Your task to perform on an android device: Go to wifi settings Image 0: 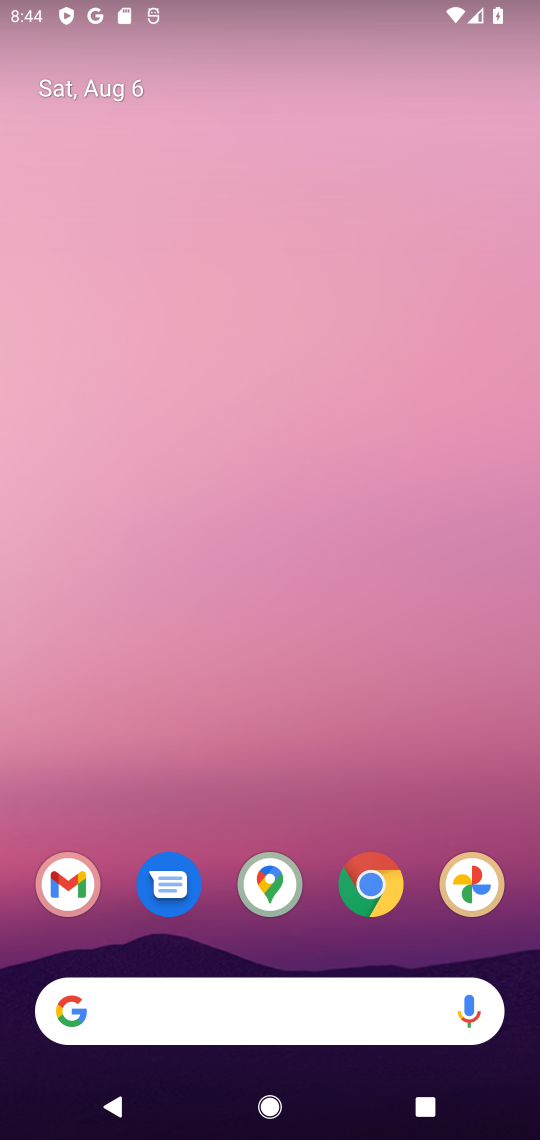
Step 0: drag from (326, 944) to (322, 124)
Your task to perform on an android device: Go to wifi settings Image 1: 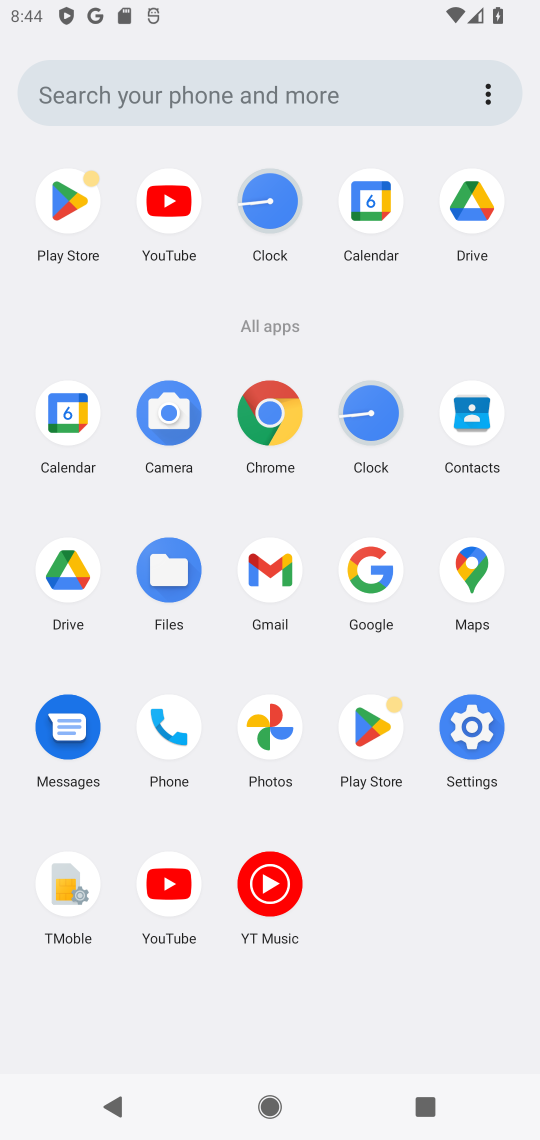
Step 1: click (472, 730)
Your task to perform on an android device: Go to wifi settings Image 2: 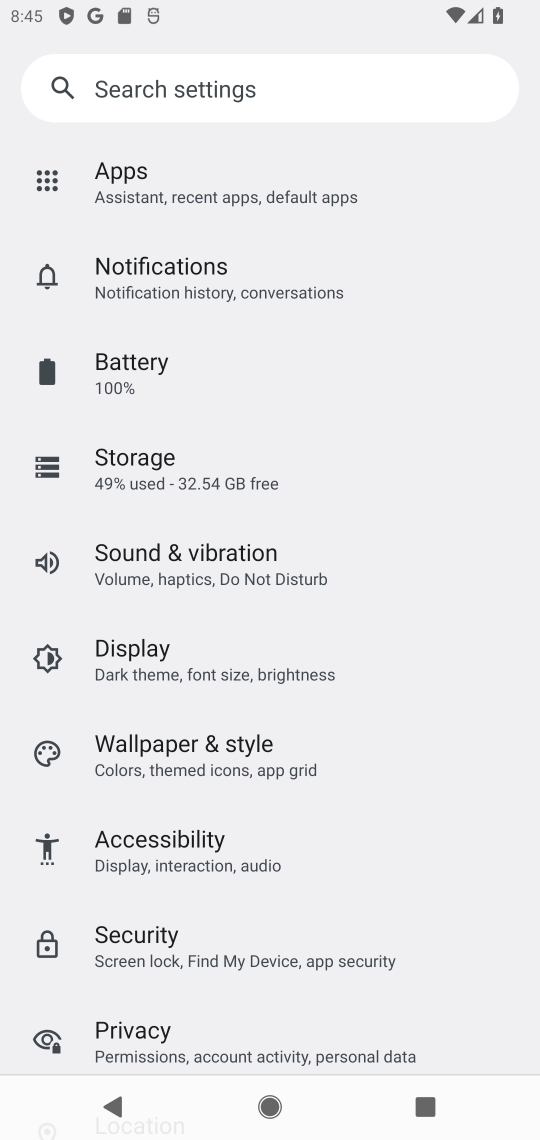
Step 2: drag from (423, 315) to (442, 736)
Your task to perform on an android device: Go to wifi settings Image 3: 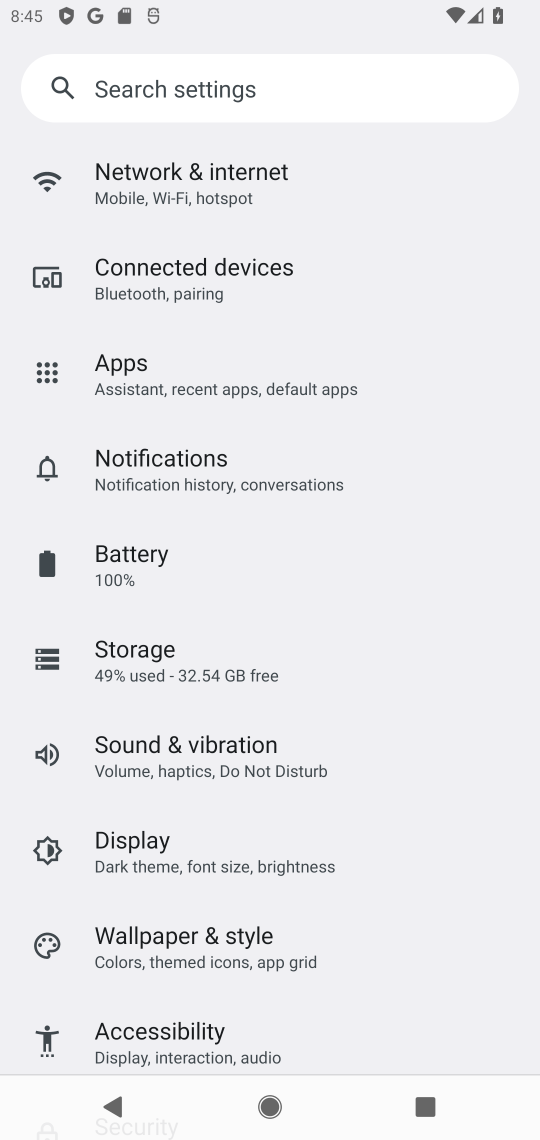
Step 3: drag from (451, 283) to (444, 648)
Your task to perform on an android device: Go to wifi settings Image 4: 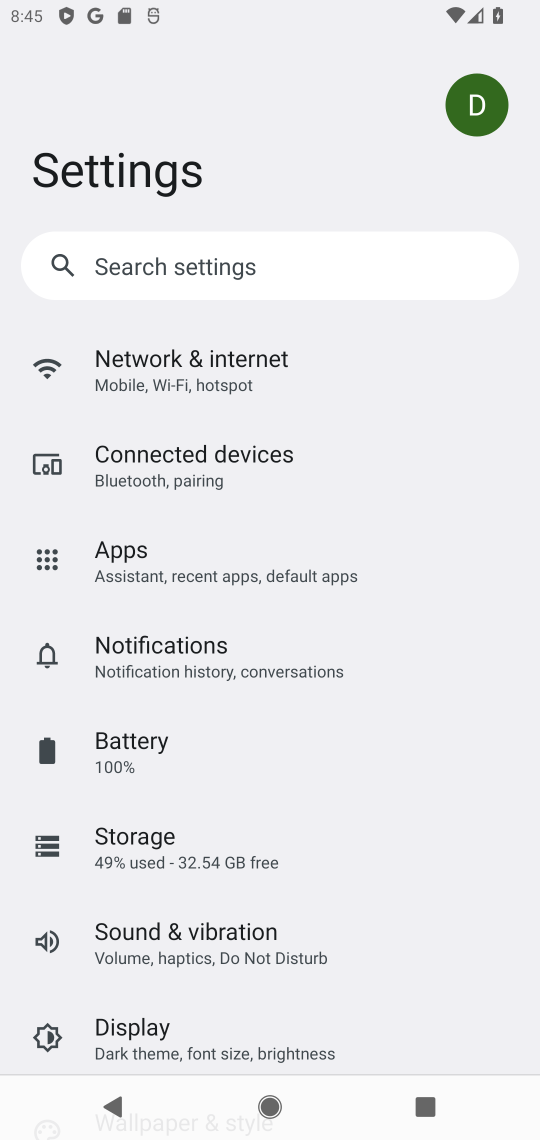
Step 4: click (134, 356)
Your task to perform on an android device: Go to wifi settings Image 5: 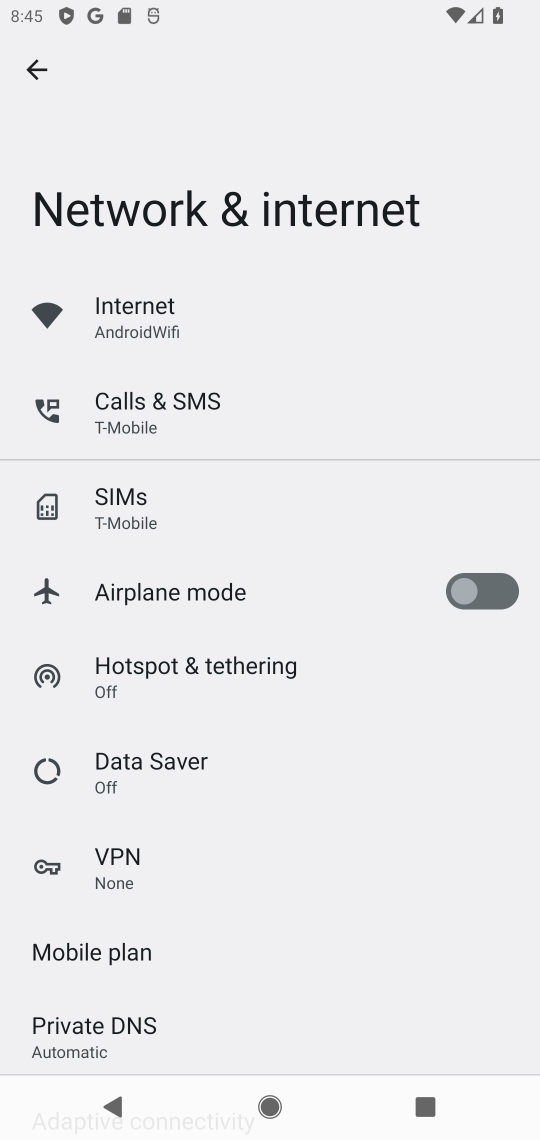
Step 5: click (149, 305)
Your task to perform on an android device: Go to wifi settings Image 6: 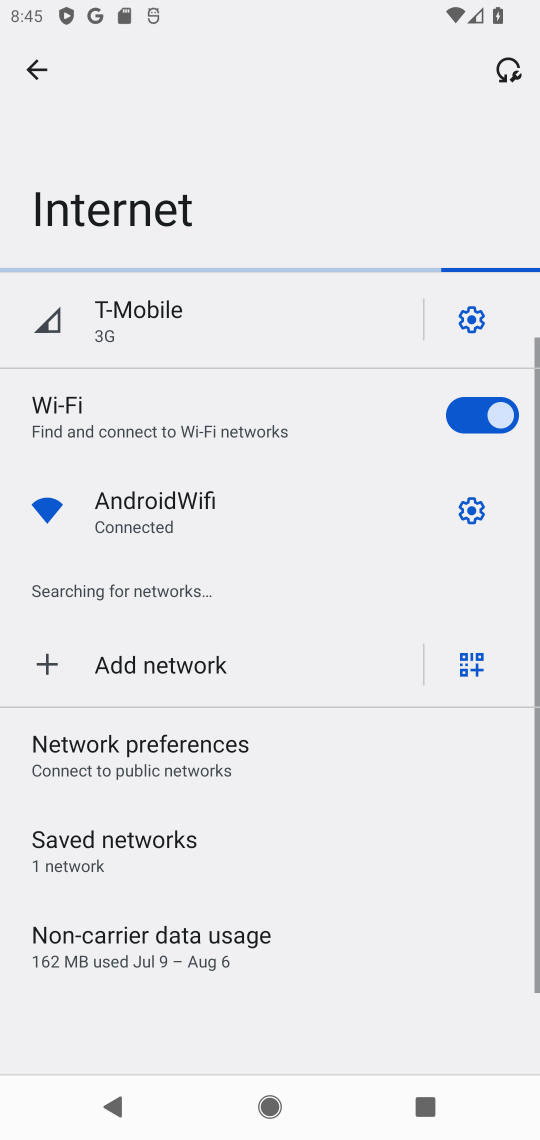
Step 6: click (474, 507)
Your task to perform on an android device: Go to wifi settings Image 7: 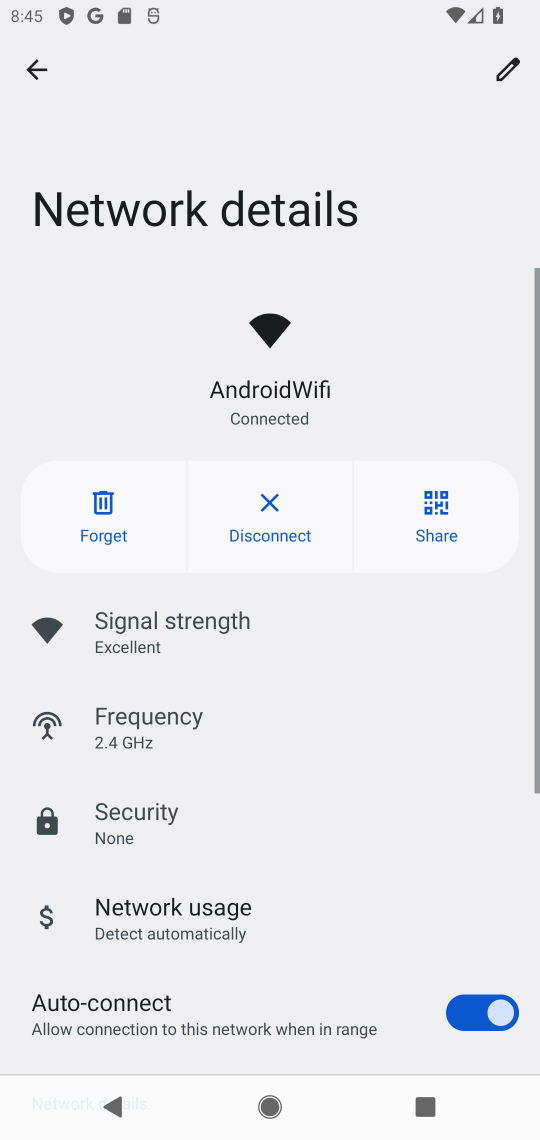
Step 7: task complete